Your task to perform on an android device: Go to display settings Image 0: 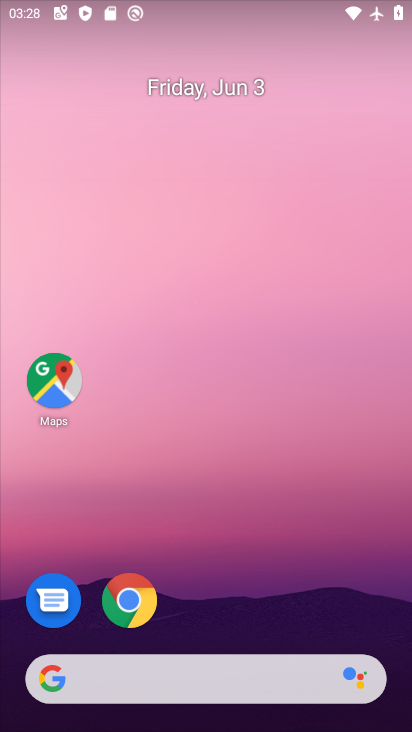
Step 0: drag from (221, 630) to (282, 13)
Your task to perform on an android device: Go to display settings Image 1: 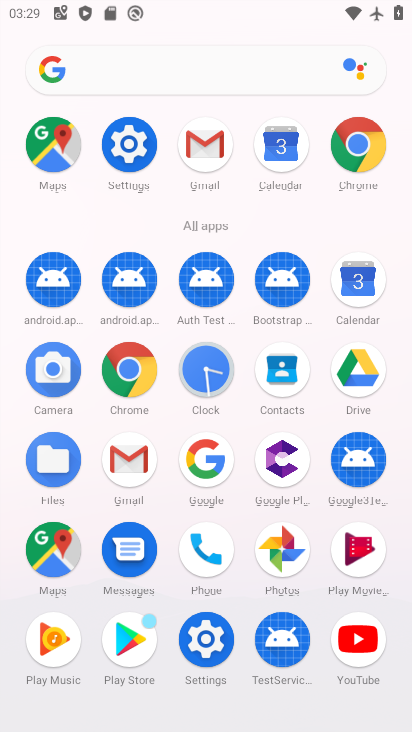
Step 1: click (208, 646)
Your task to perform on an android device: Go to display settings Image 2: 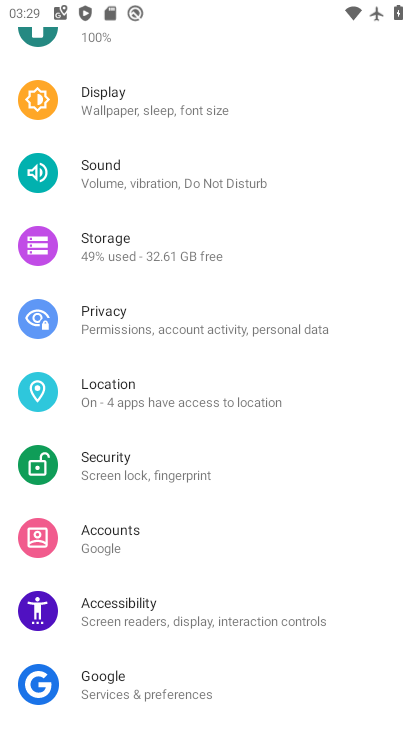
Step 2: drag from (193, 261) to (203, 547)
Your task to perform on an android device: Go to display settings Image 3: 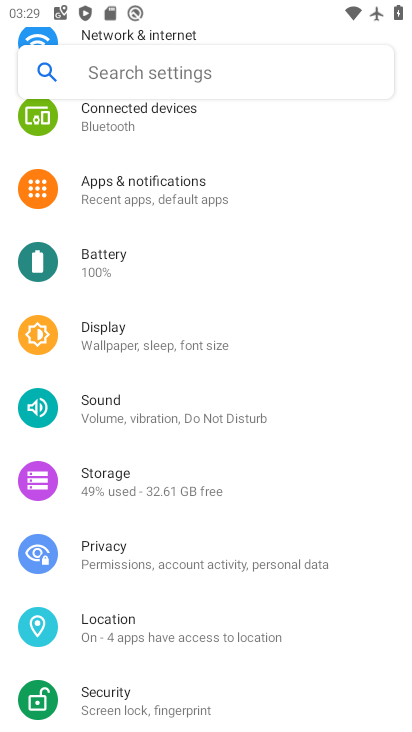
Step 3: click (140, 338)
Your task to perform on an android device: Go to display settings Image 4: 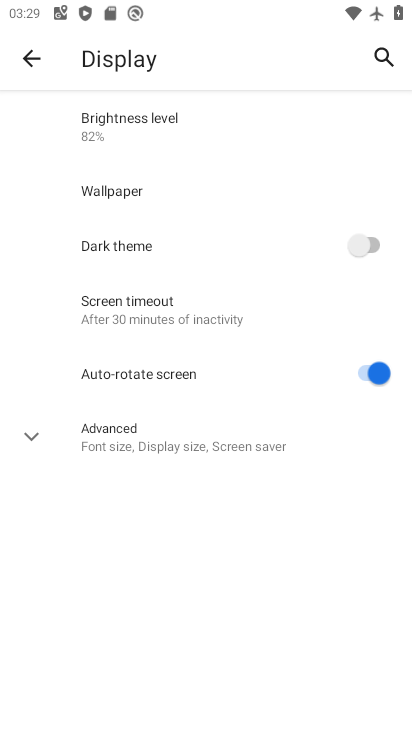
Step 4: task complete